Your task to perform on an android device: Open maps Image 0: 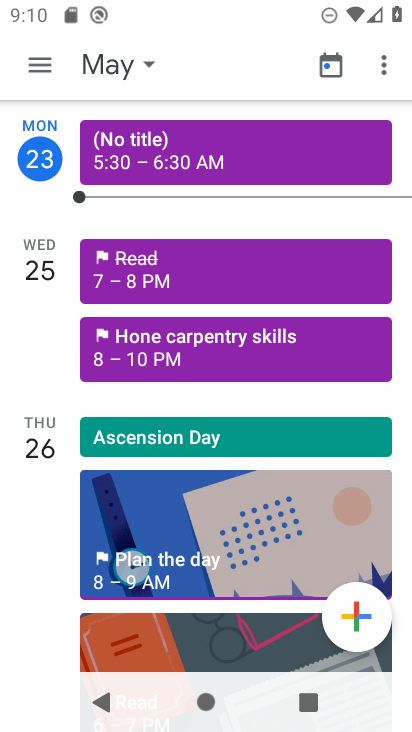
Step 0: press home button
Your task to perform on an android device: Open maps Image 1: 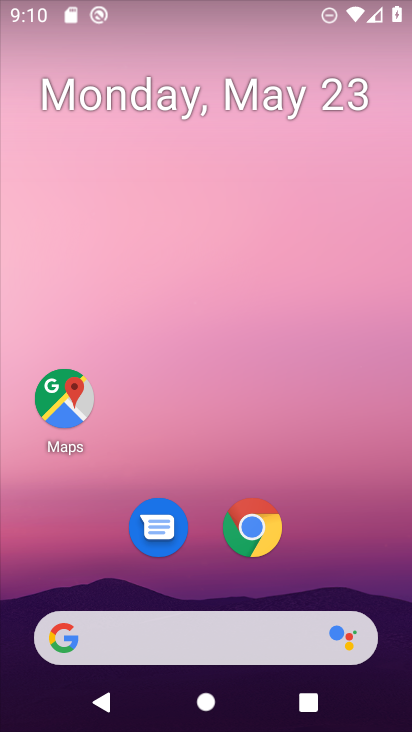
Step 1: click (50, 397)
Your task to perform on an android device: Open maps Image 2: 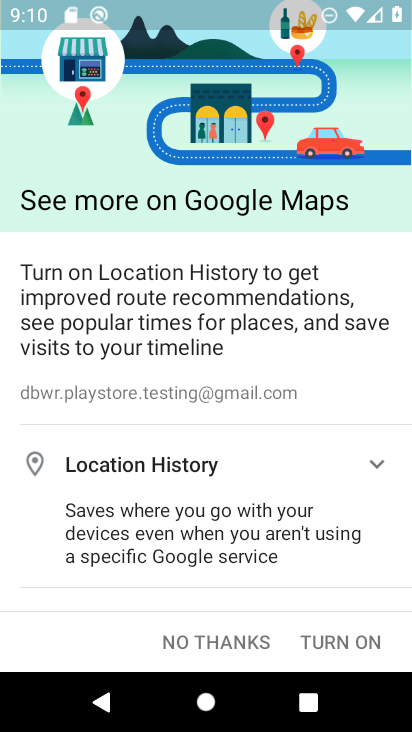
Step 2: press home button
Your task to perform on an android device: Open maps Image 3: 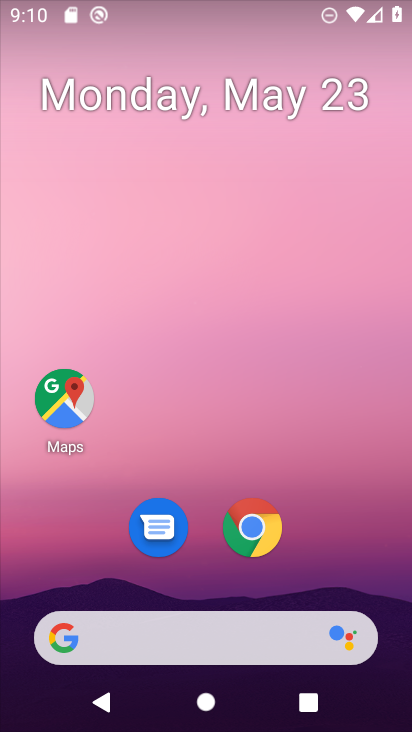
Step 3: click (69, 413)
Your task to perform on an android device: Open maps Image 4: 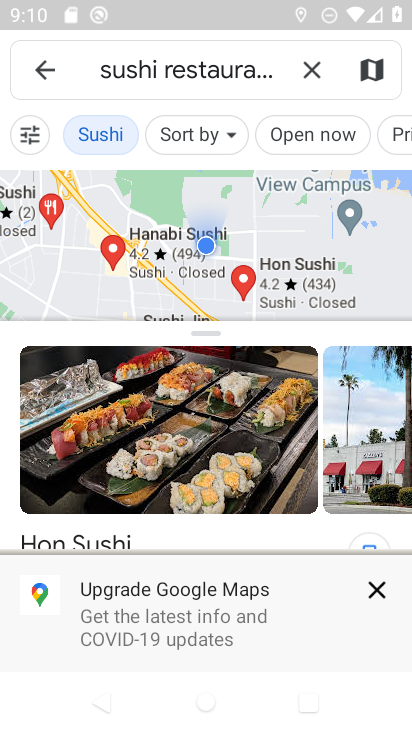
Step 4: click (314, 66)
Your task to perform on an android device: Open maps Image 5: 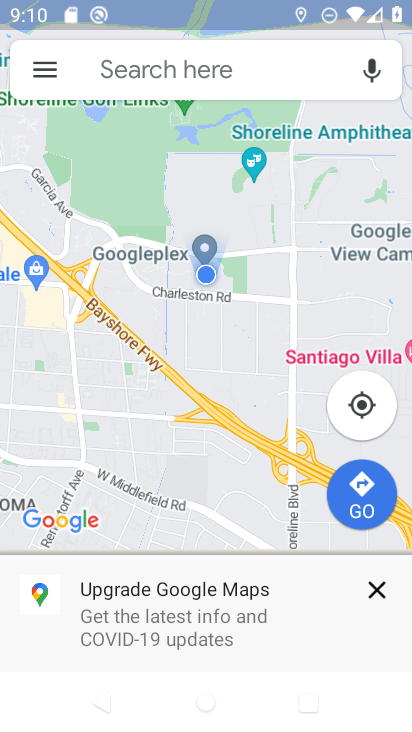
Step 5: task complete